Your task to perform on an android device: When is my next appointment? Image 0: 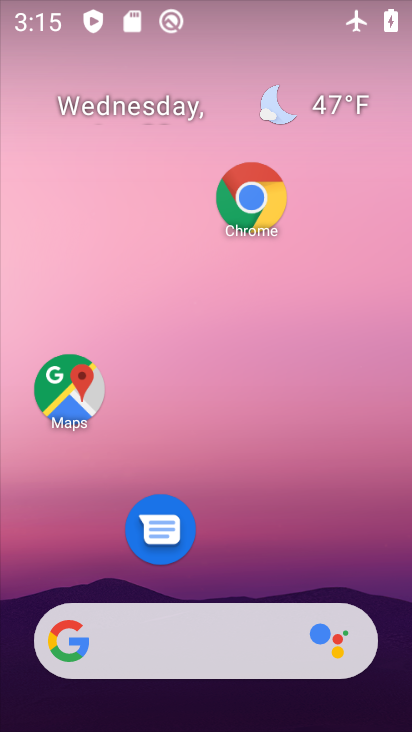
Step 0: drag from (255, 541) to (237, 52)
Your task to perform on an android device: When is my next appointment? Image 1: 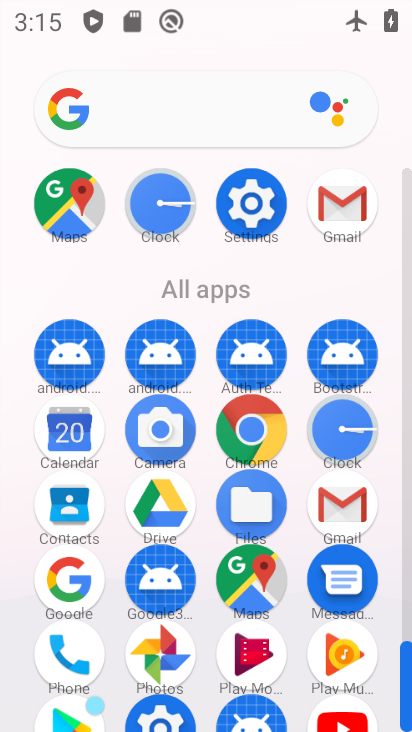
Step 1: click (62, 438)
Your task to perform on an android device: When is my next appointment? Image 2: 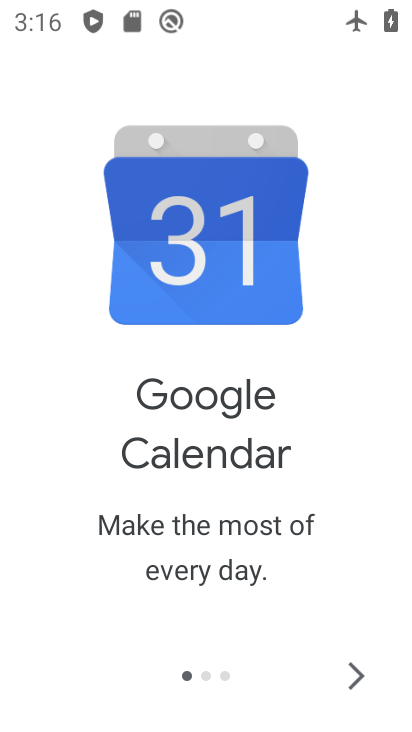
Step 2: click (355, 671)
Your task to perform on an android device: When is my next appointment? Image 3: 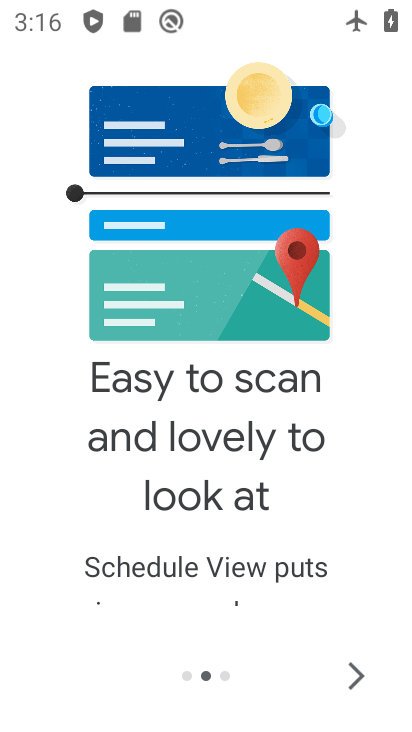
Step 3: click (355, 671)
Your task to perform on an android device: When is my next appointment? Image 4: 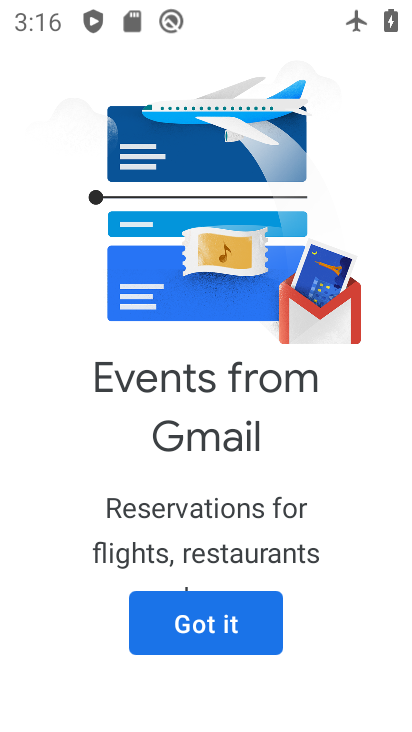
Step 4: click (228, 622)
Your task to perform on an android device: When is my next appointment? Image 5: 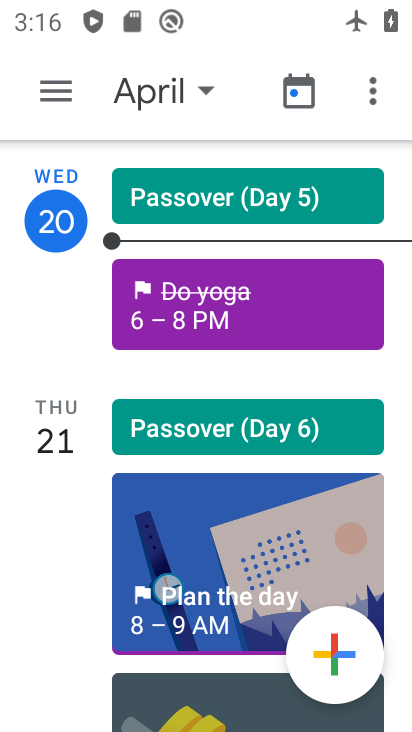
Step 5: task complete